Your task to perform on an android device: Open Youtube and go to the subscriptions tab Image 0: 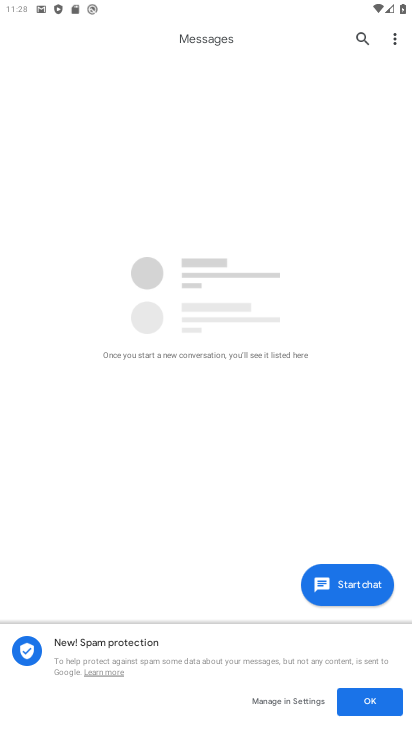
Step 0: press home button
Your task to perform on an android device: Open Youtube and go to the subscriptions tab Image 1: 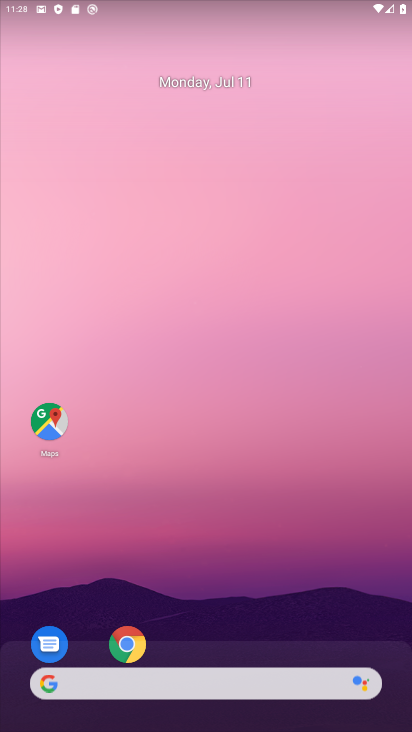
Step 1: drag from (220, 665) to (221, 56)
Your task to perform on an android device: Open Youtube and go to the subscriptions tab Image 2: 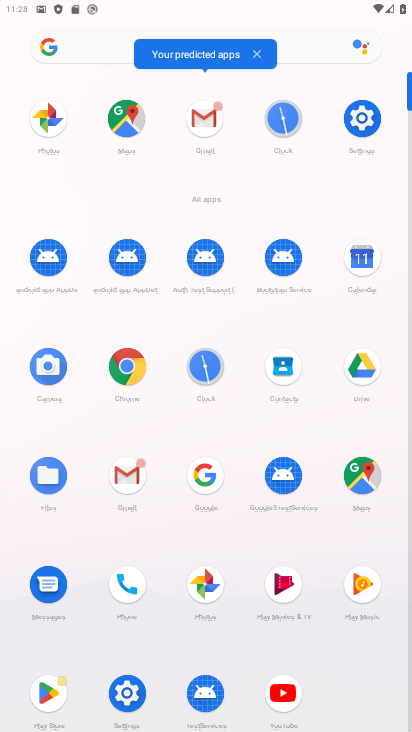
Step 2: click (278, 691)
Your task to perform on an android device: Open Youtube and go to the subscriptions tab Image 3: 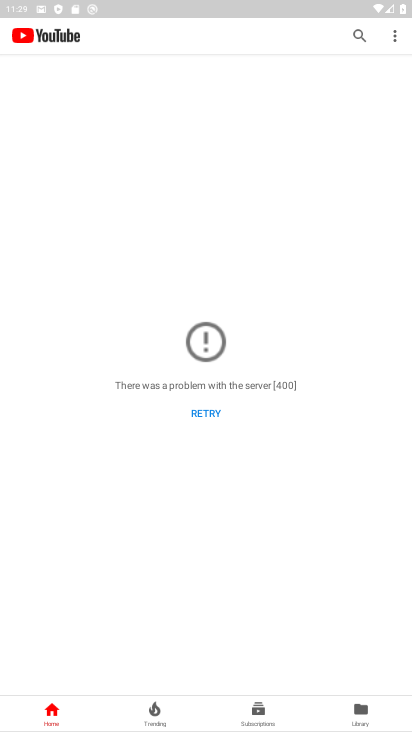
Step 3: click (269, 714)
Your task to perform on an android device: Open Youtube and go to the subscriptions tab Image 4: 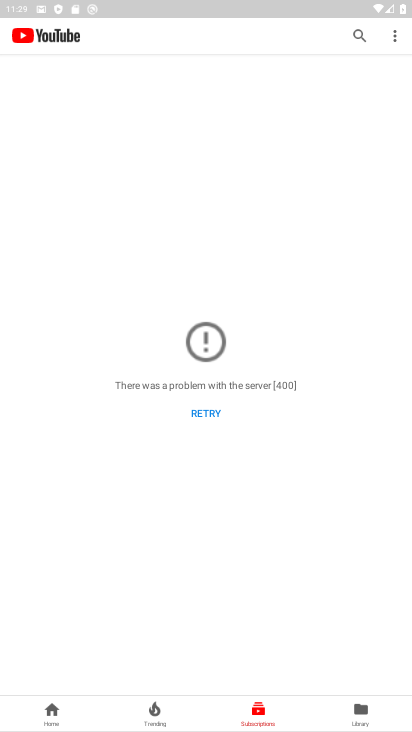
Step 4: task complete